Your task to perform on an android device: Open calendar and show me the third week of next month Image 0: 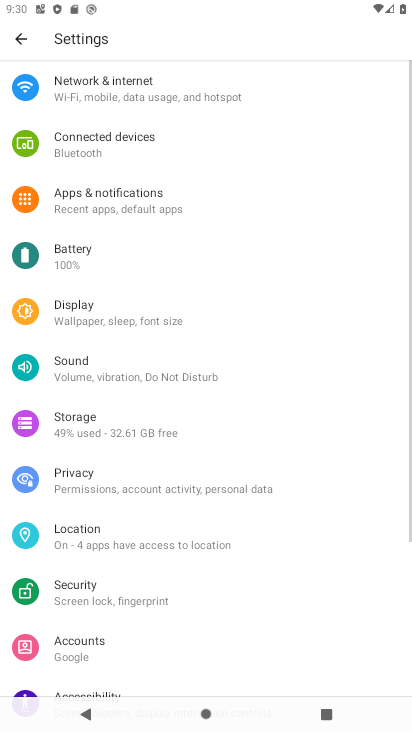
Step 0: press home button
Your task to perform on an android device: Open calendar and show me the third week of next month Image 1: 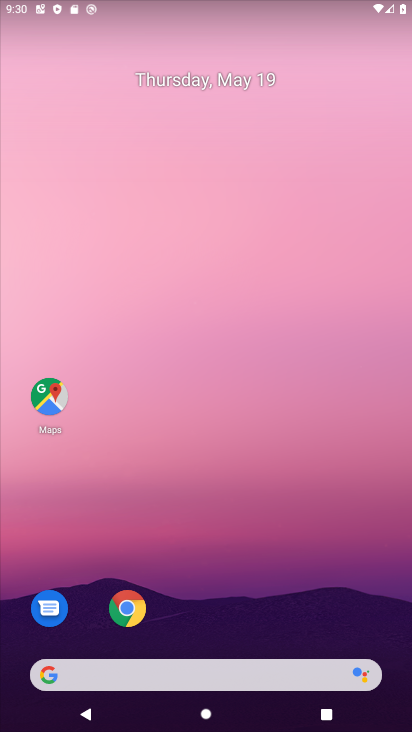
Step 1: drag from (167, 600) to (192, 280)
Your task to perform on an android device: Open calendar and show me the third week of next month Image 2: 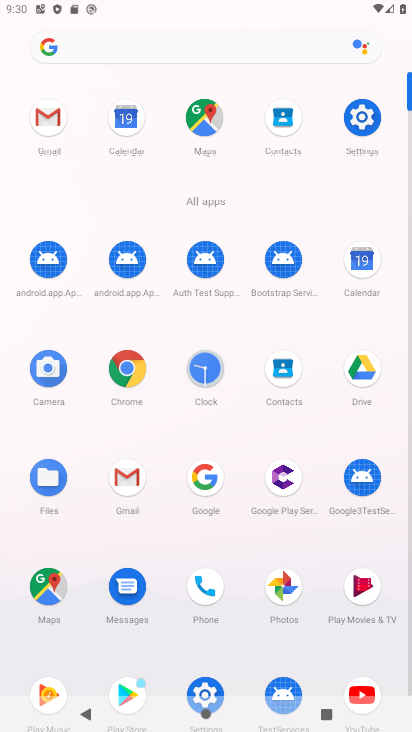
Step 2: click (367, 264)
Your task to perform on an android device: Open calendar and show me the third week of next month Image 3: 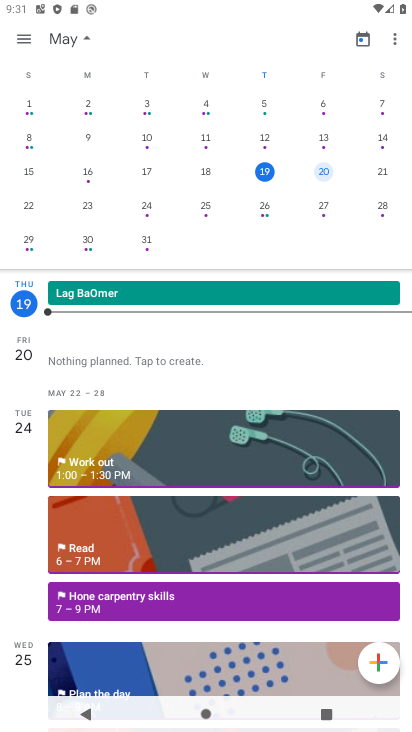
Step 3: drag from (397, 158) to (88, 150)
Your task to perform on an android device: Open calendar and show me the third week of next month Image 4: 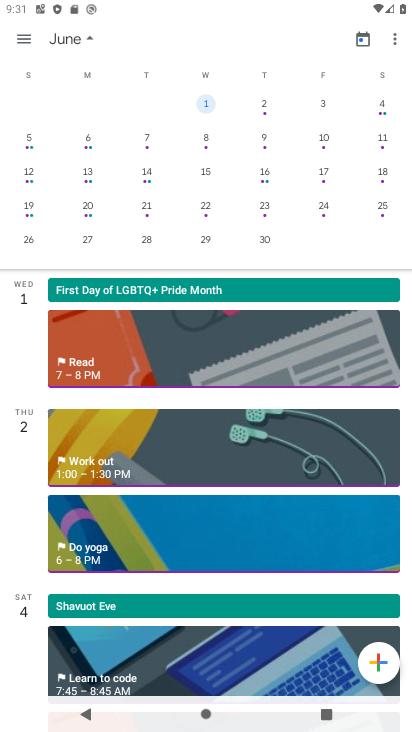
Step 4: click (138, 173)
Your task to perform on an android device: Open calendar and show me the third week of next month Image 5: 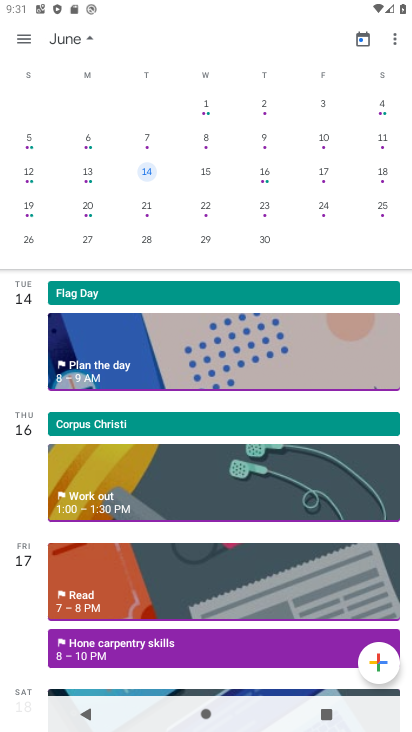
Step 5: click (15, 35)
Your task to perform on an android device: Open calendar and show me the third week of next month Image 6: 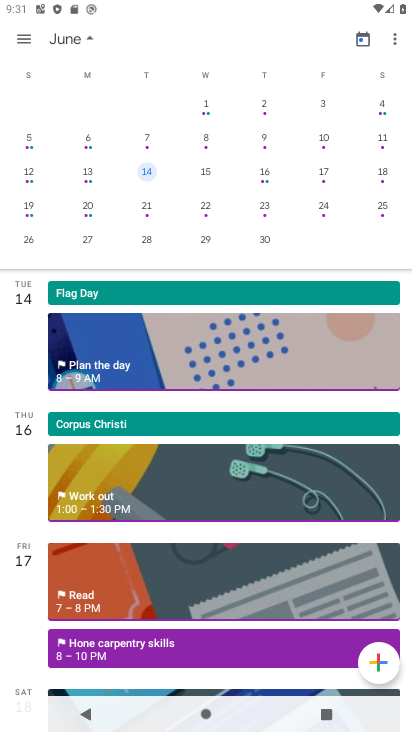
Step 6: click (32, 41)
Your task to perform on an android device: Open calendar and show me the third week of next month Image 7: 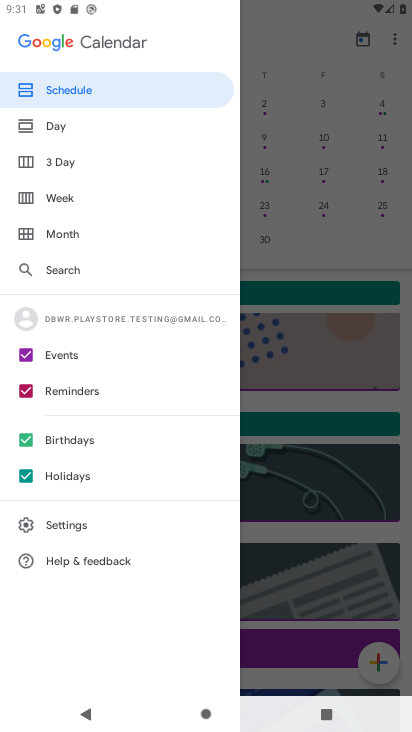
Step 7: click (67, 201)
Your task to perform on an android device: Open calendar and show me the third week of next month Image 8: 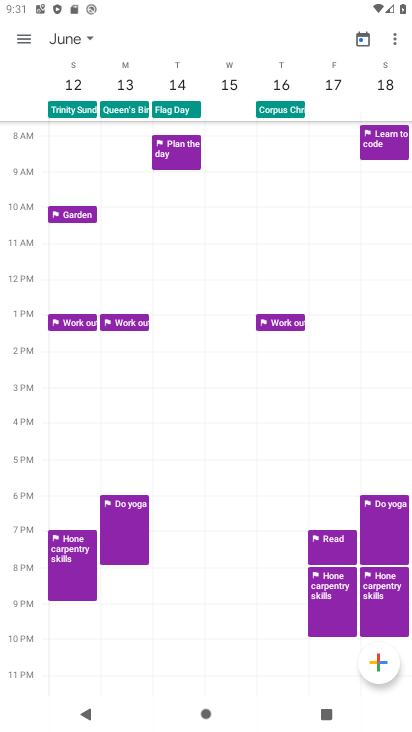
Step 8: task complete